Your task to perform on an android device: What's the news in Barbados? Image 0: 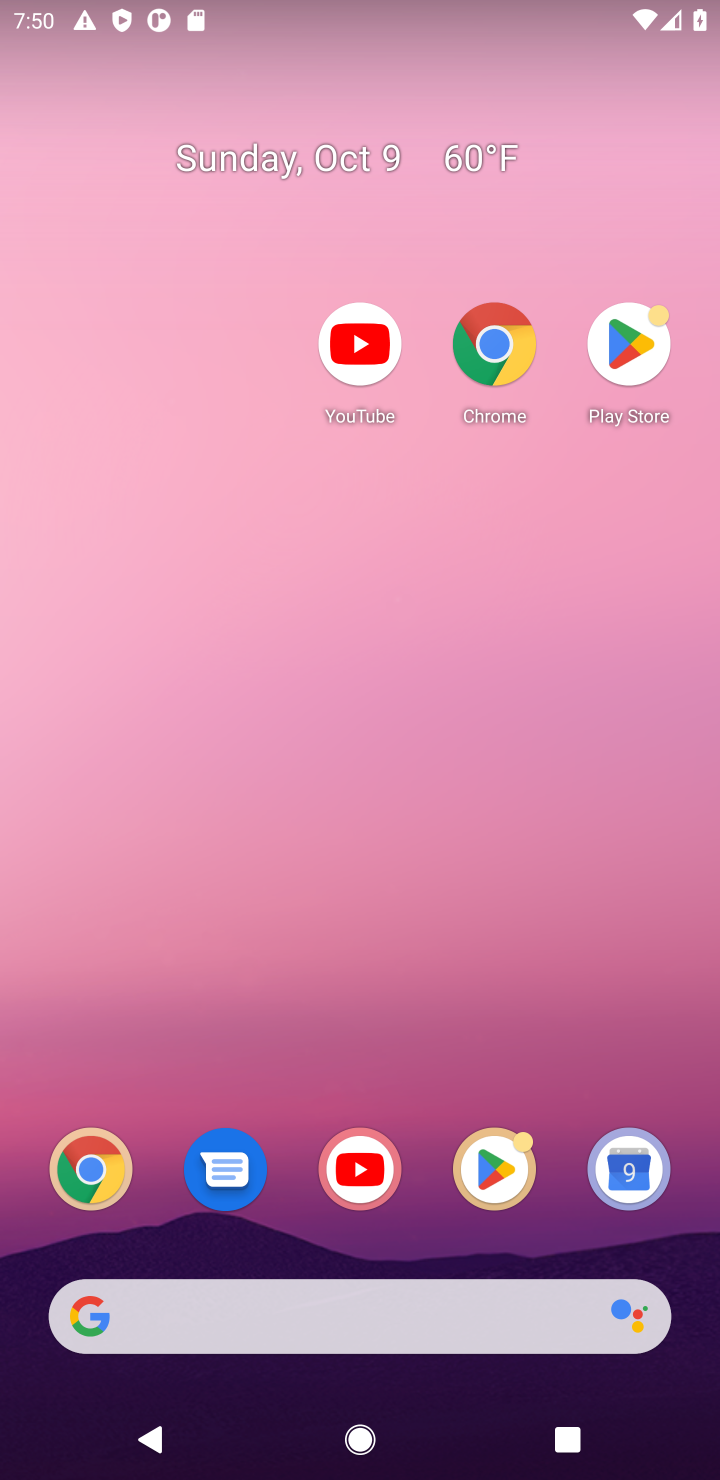
Step 0: drag from (413, 1267) to (608, 156)
Your task to perform on an android device: What's the news in Barbados? Image 1: 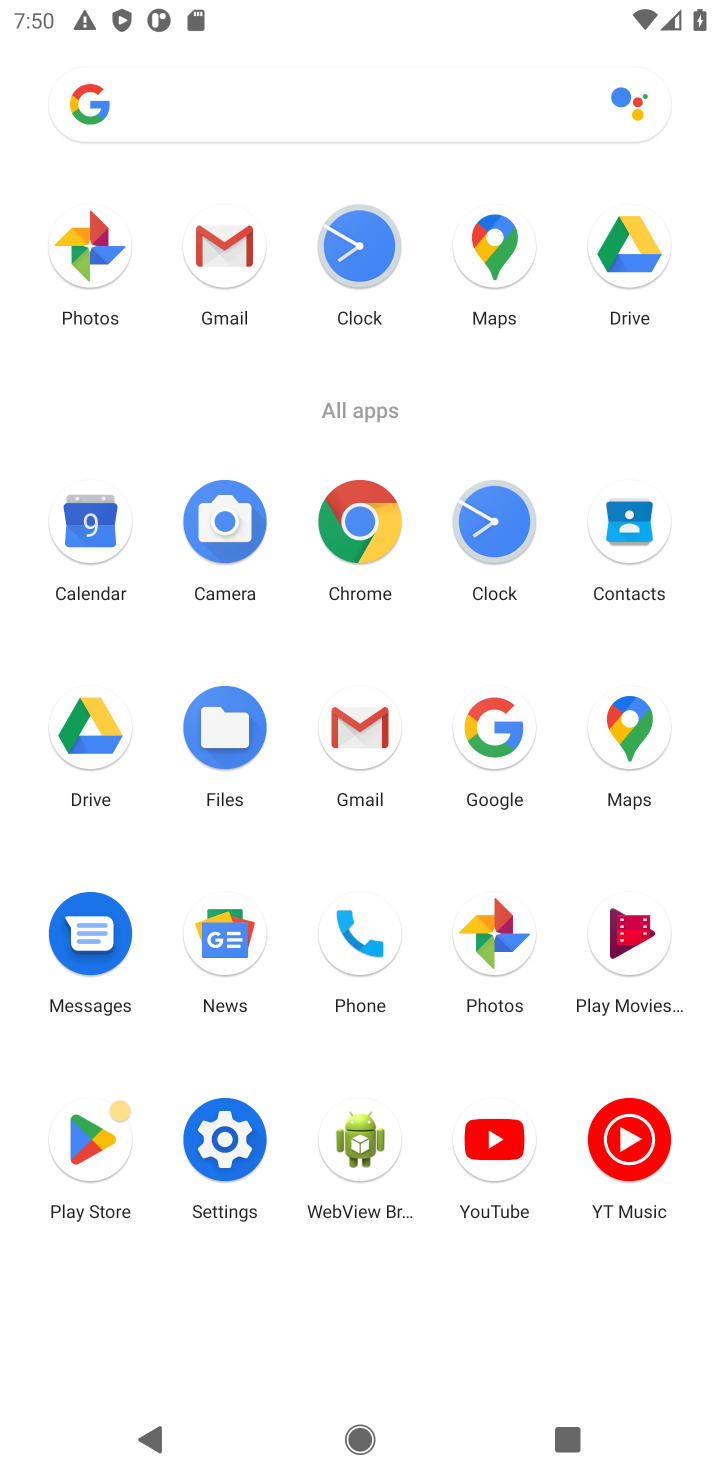
Step 1: click (363, 529)
Your task to perform on an android device: What's the news in Barbados? Image 2: 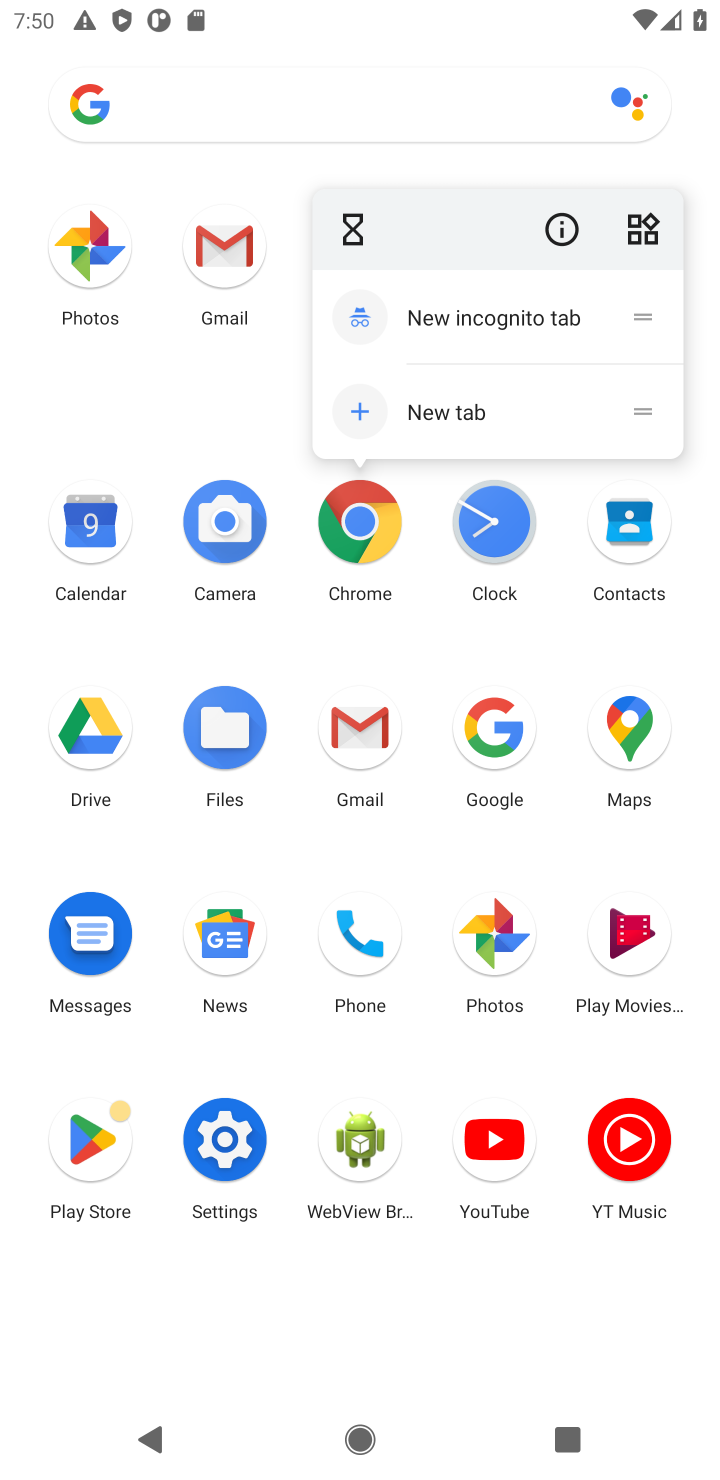
Step 2: click (361, 520)
Your task to perform on an android device: What's the news in Barbados? Image 3: 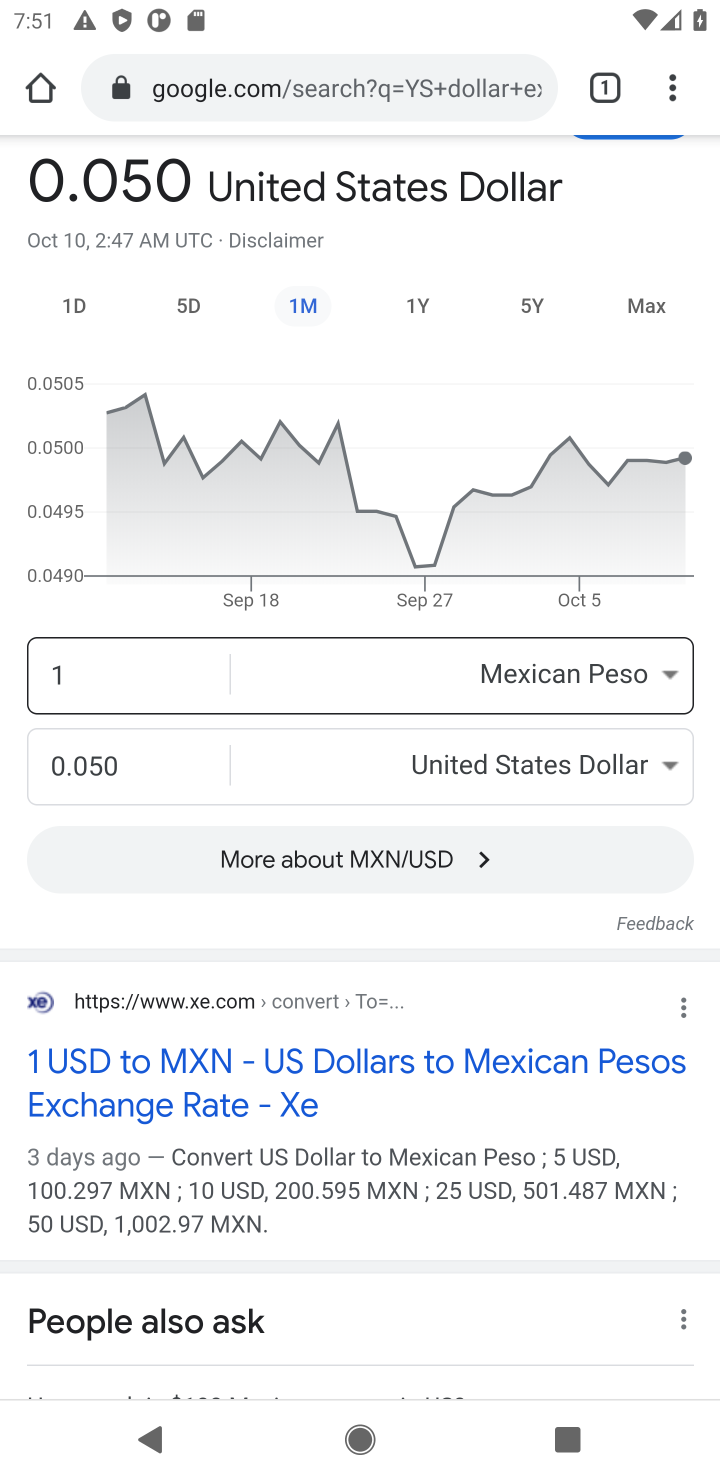
Step 3: click (344, 83)
Your task to perform on an android device: What's the news in Barbados? Image 4: 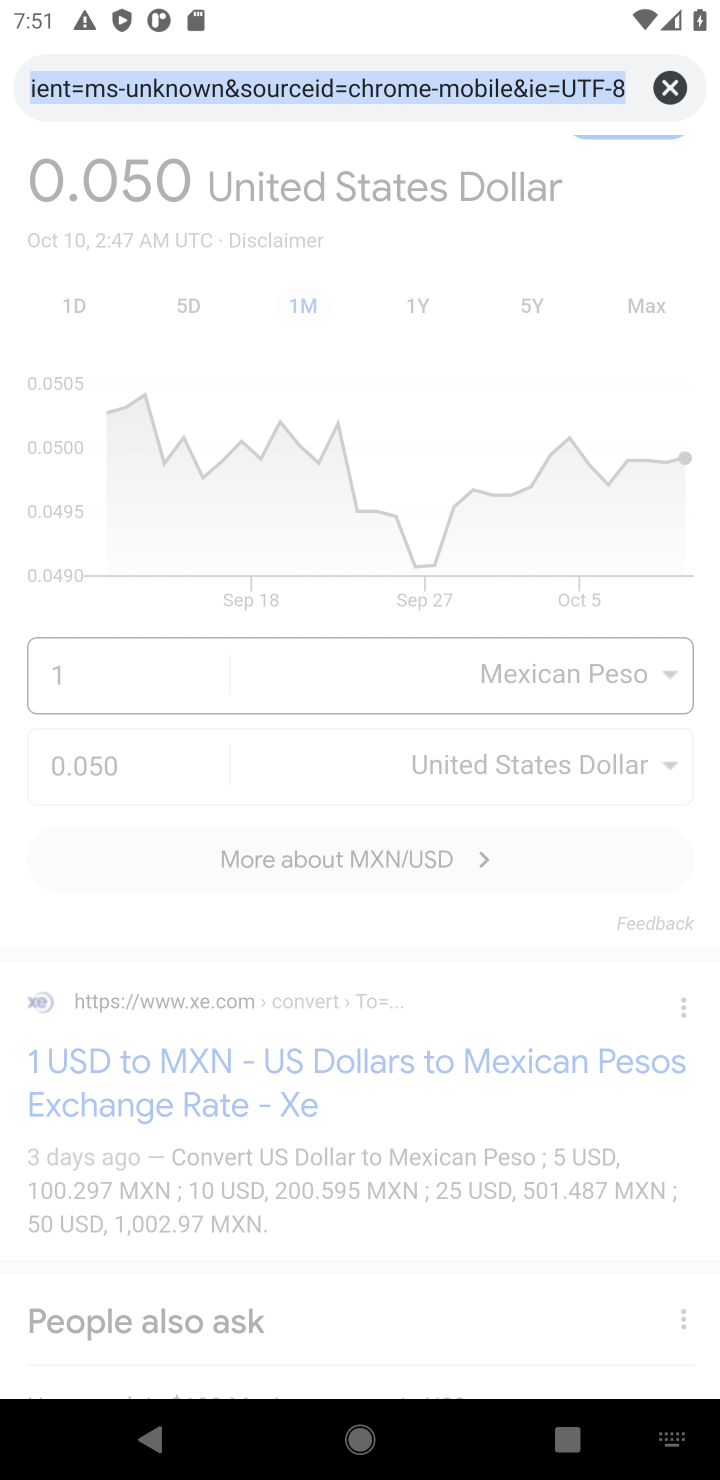
Step 4: type "news in Barbodos"
Your task to perform on an android device: What's the news in Barbados? Image 5: 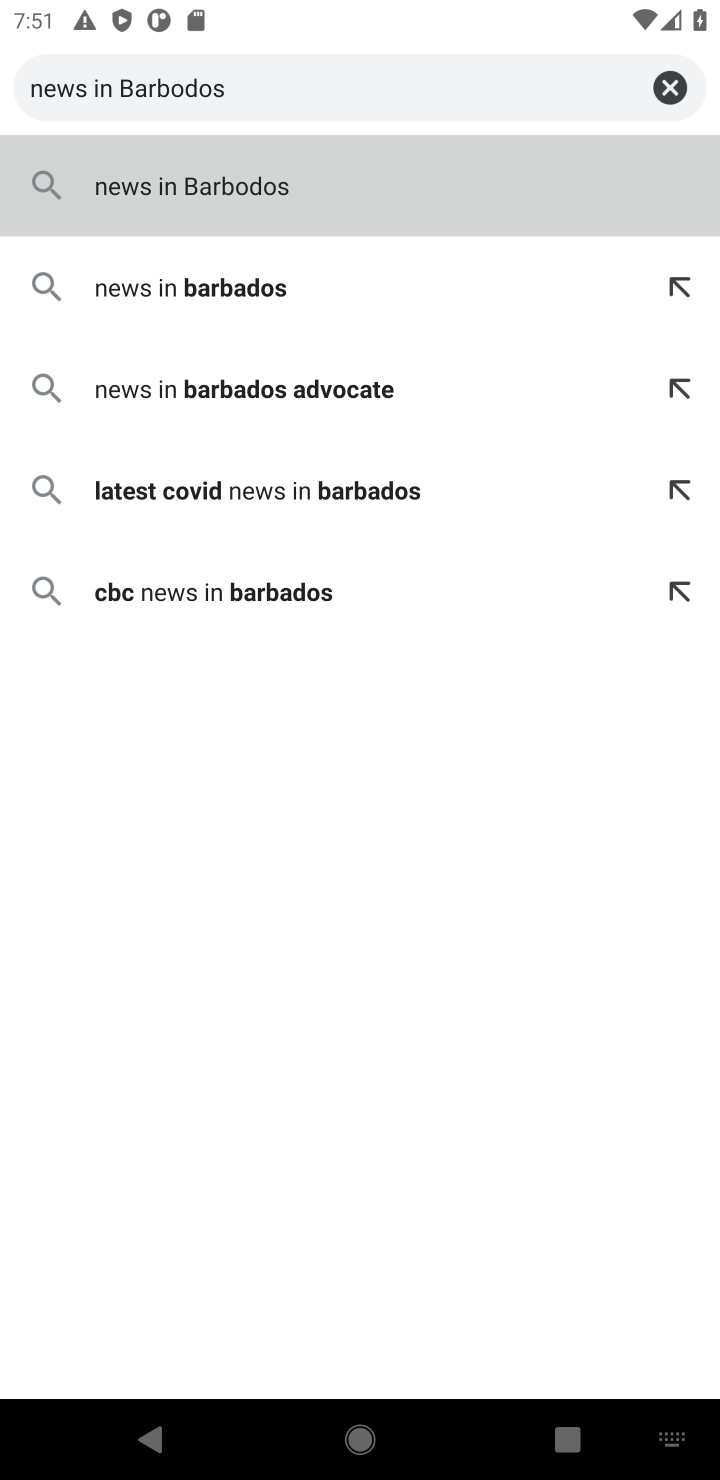
Step 5: press enter
Your task to perform on an android device: What's the news in Barbados? Image 6: 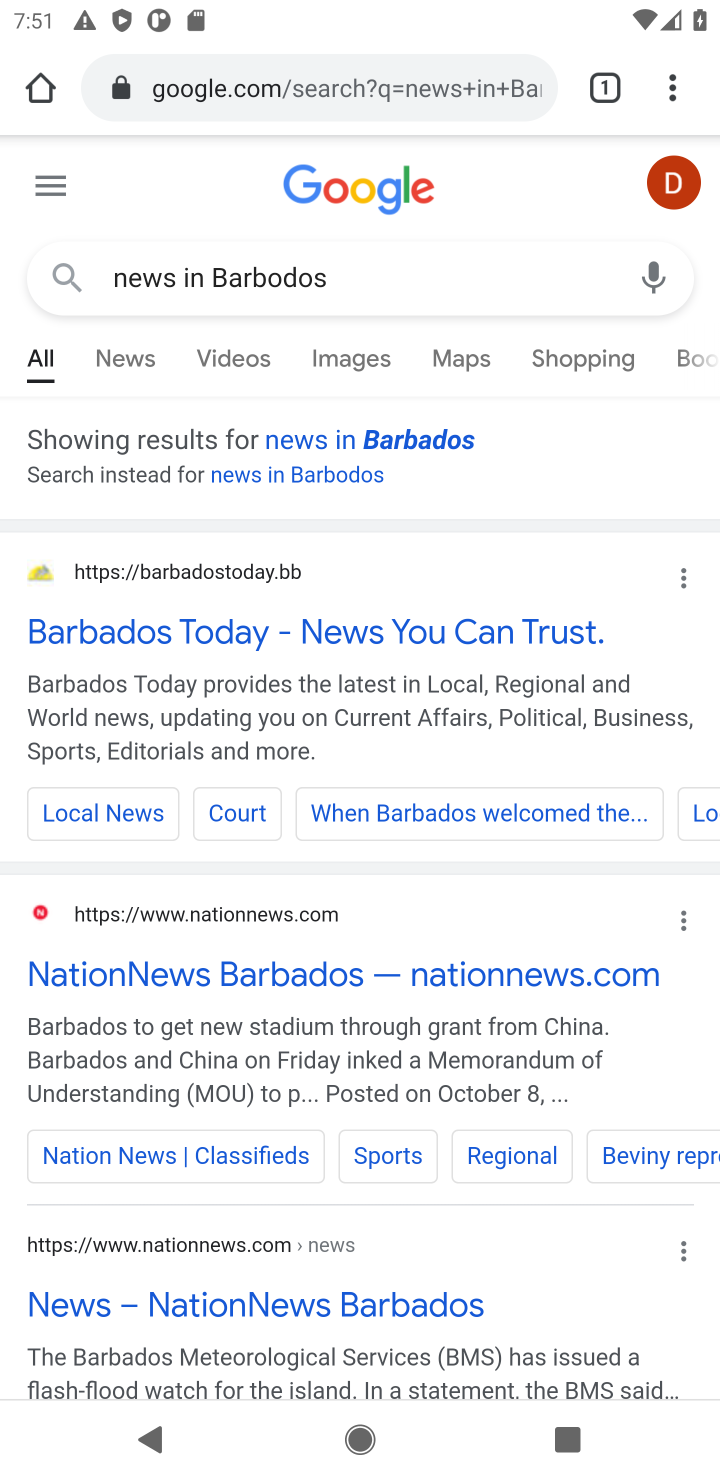
Step 6: click (315, 617)
Your task to perform on an android device: What's the news in Barbados? Image 7: 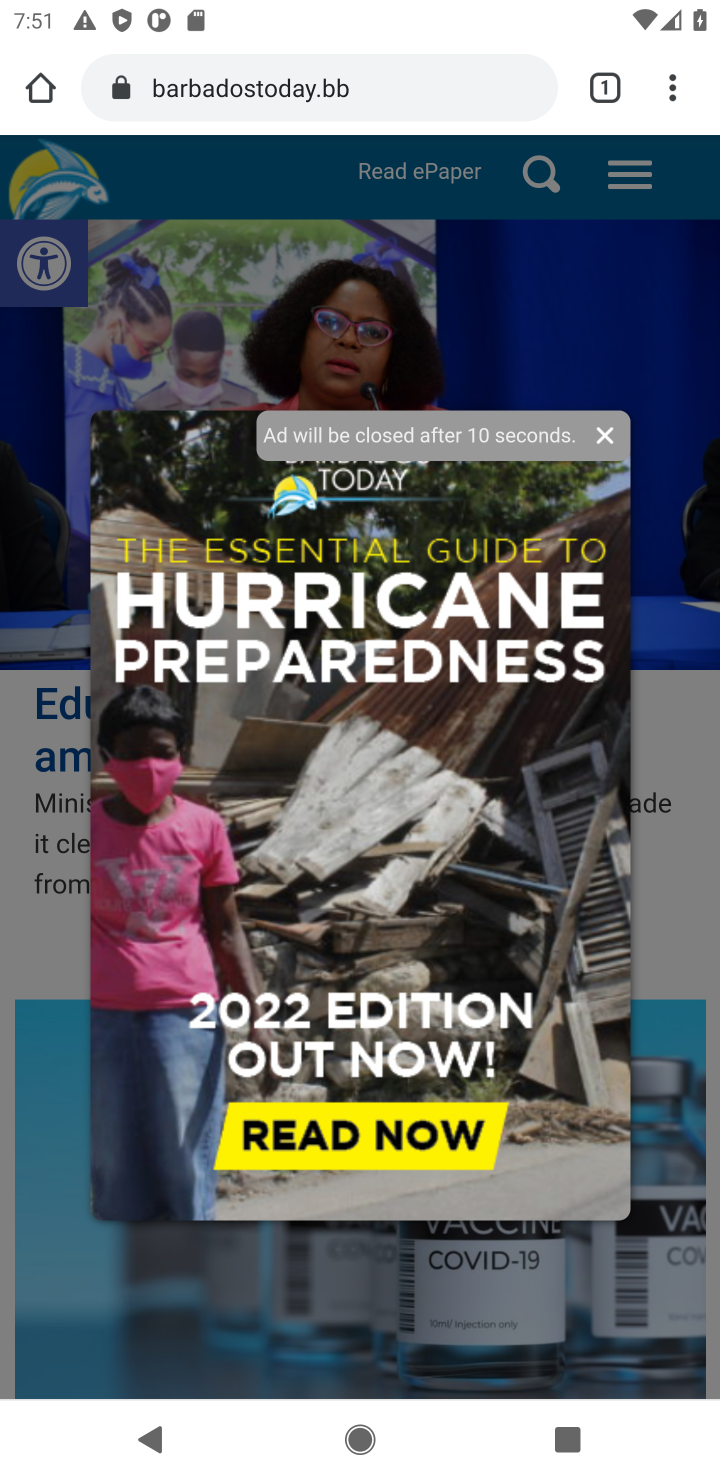
Step 7: click (600, 442)
Your task to perform on an android device: What's the news in Barbados? Image 8: 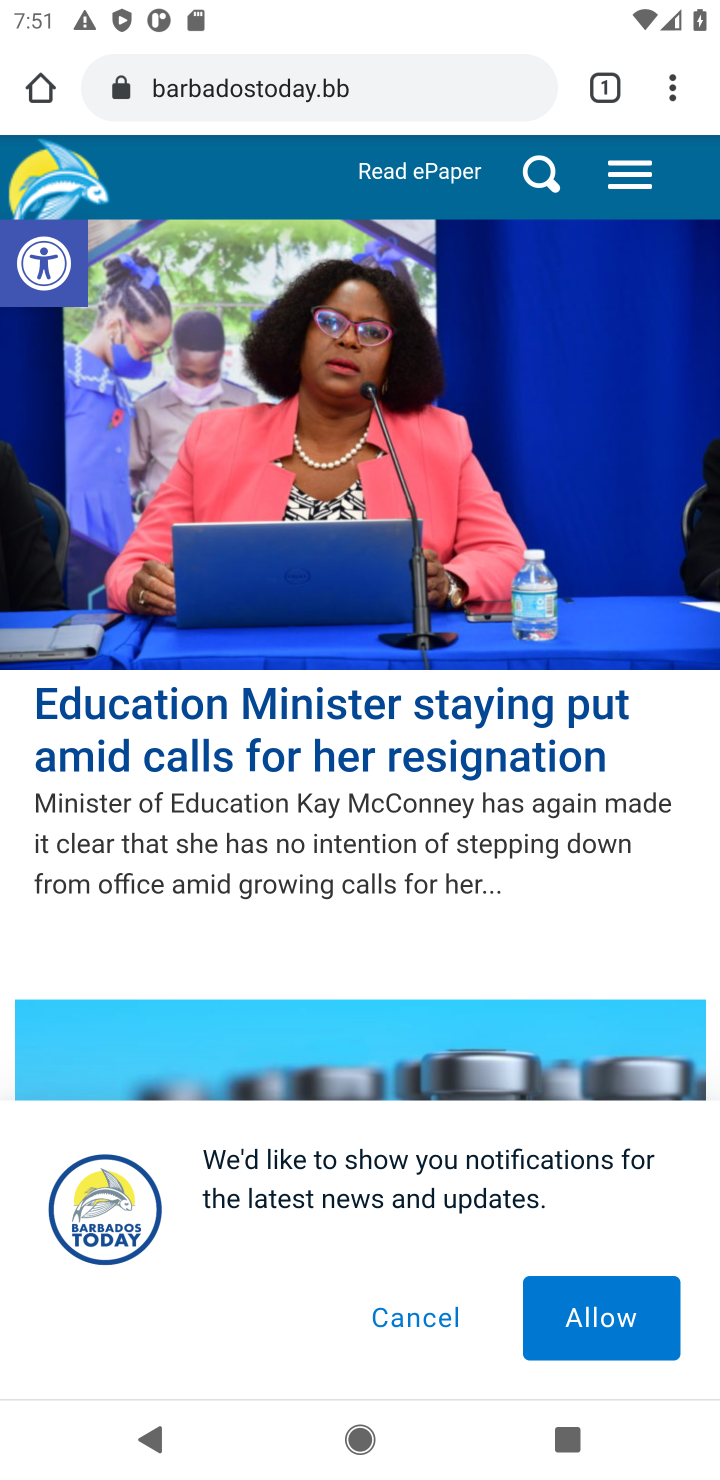
Step 8: click (600, 431)
Your task to perform on an android device: What's the news in Barbados? Image 9: 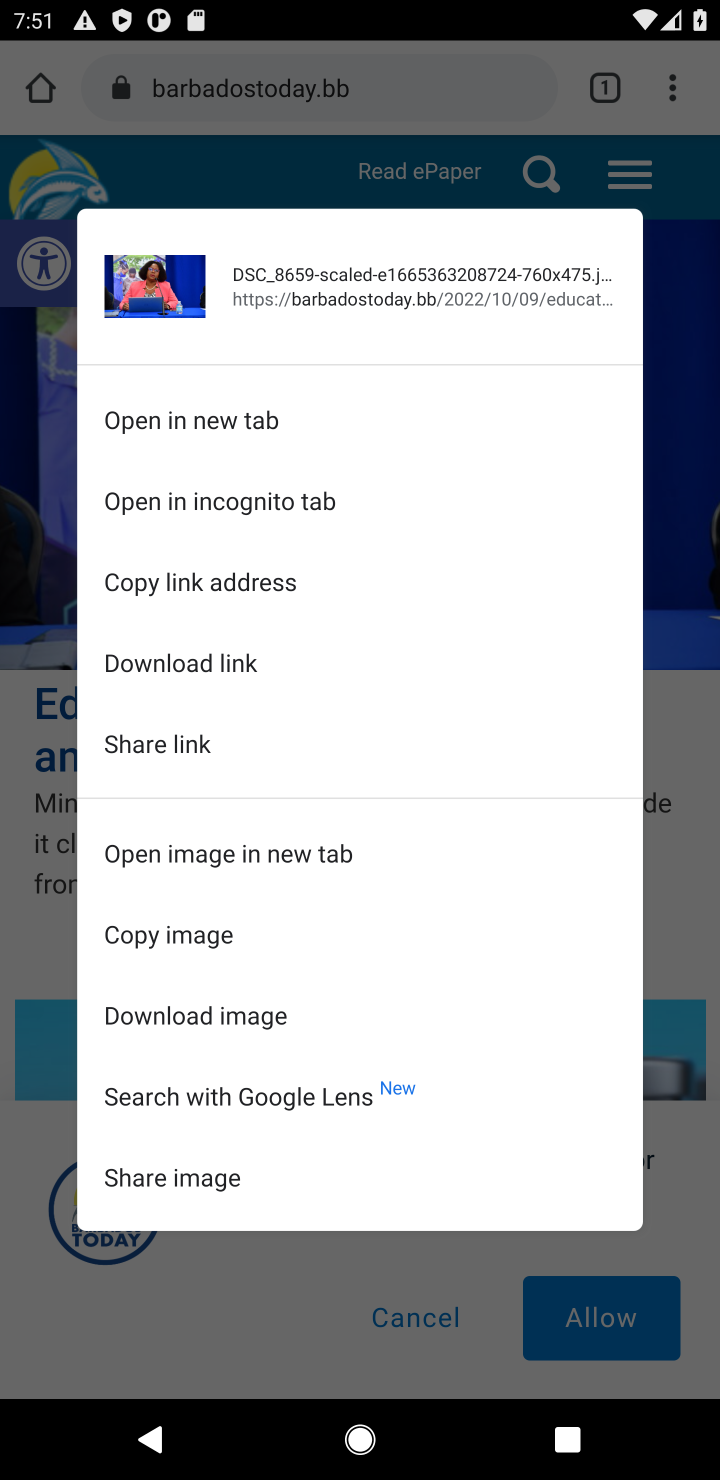
Step 9: click (500, 153)
Your task to perform on an android device: What's the news in Barbados? Image 10: 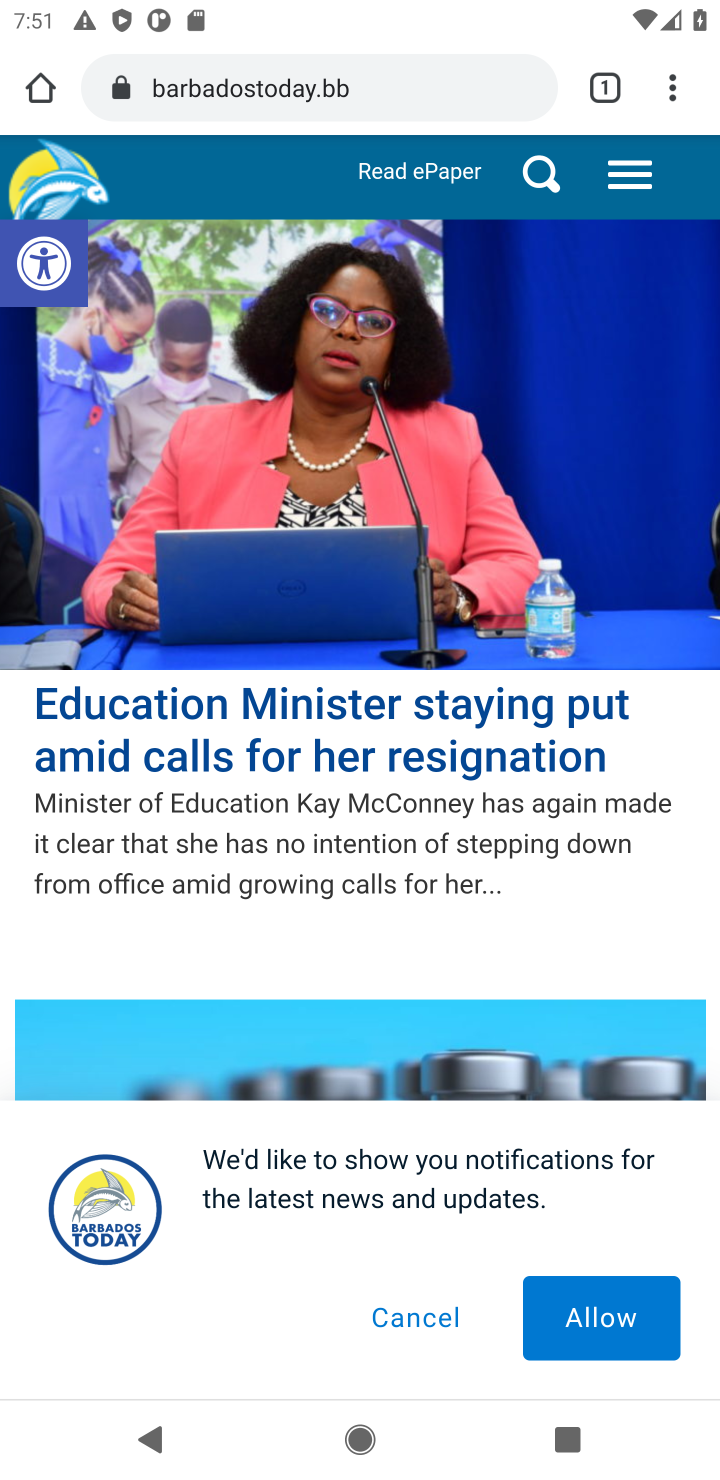
Step 10: task complete